Your task to perform on an android device: Open privacy settings Image 0: 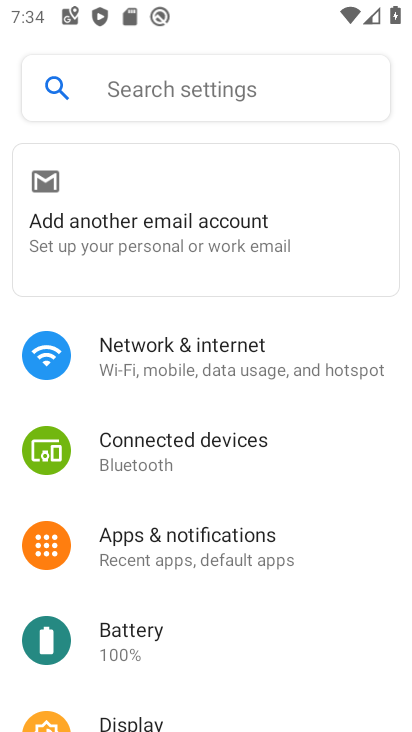
Step 0: drag from (203, 626) to (159, 253)
Your task to perform on an android device: Open privacy settings Image 1: 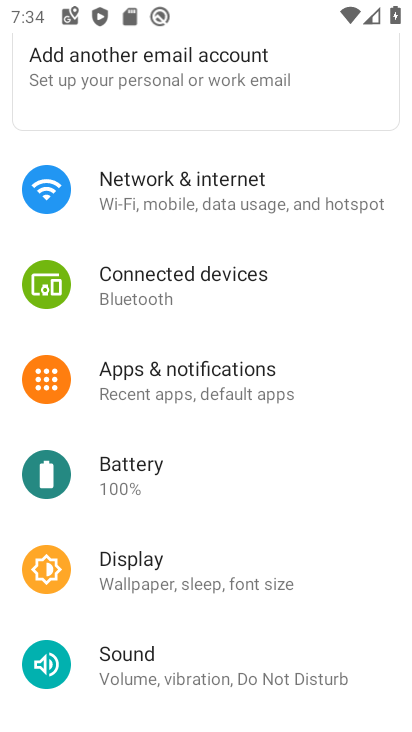
Step 1: drag from (169, 564) to (206, 255)
Your task to perform on an android device: Open privacy settings Image 2: 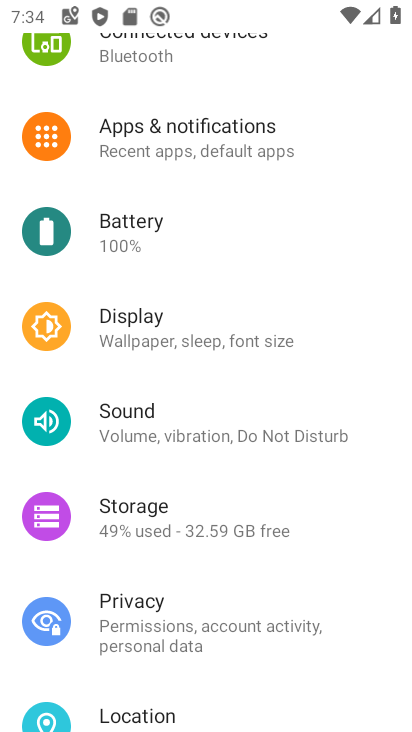
Step 2: drag from (223, 603) to (280, 259)
Your task to perform on an android device: Open privacy settings Image 3: 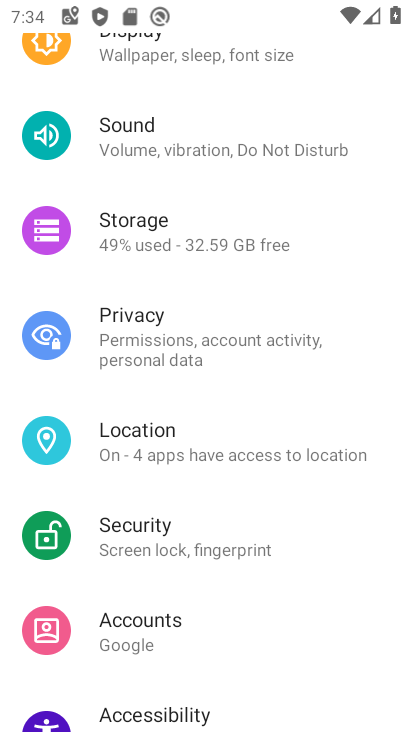
Step 3: click (196, 338)
Your task to perform on an android device: Open privacy settings Image 4: 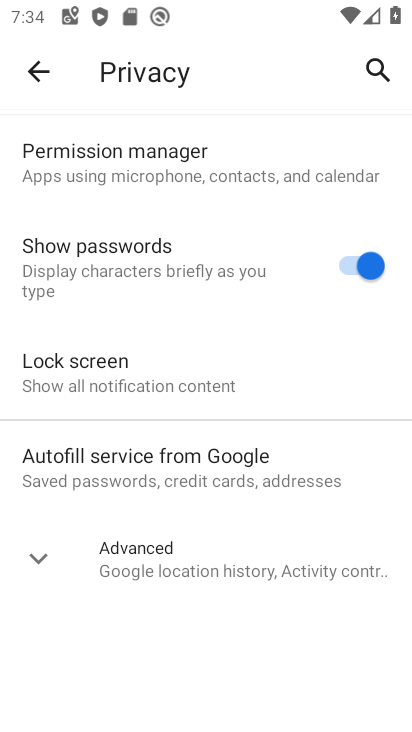
Step 4: task complete